Your task to perform on an android device: Go to wifi settings Image 0: 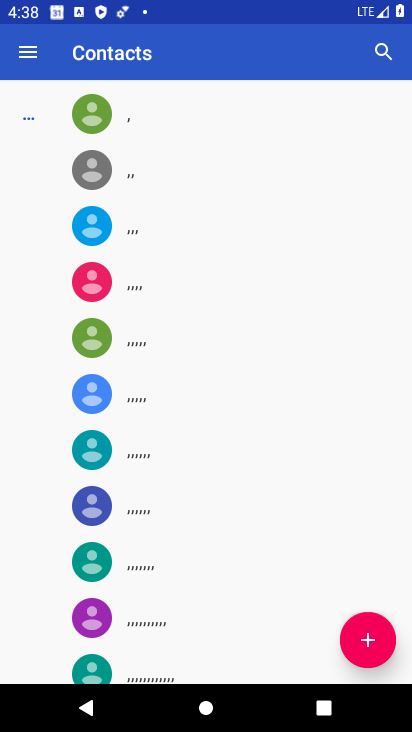
Step 0: press home button
Your task to perform on an android device: Go to wifi settings Image 1: 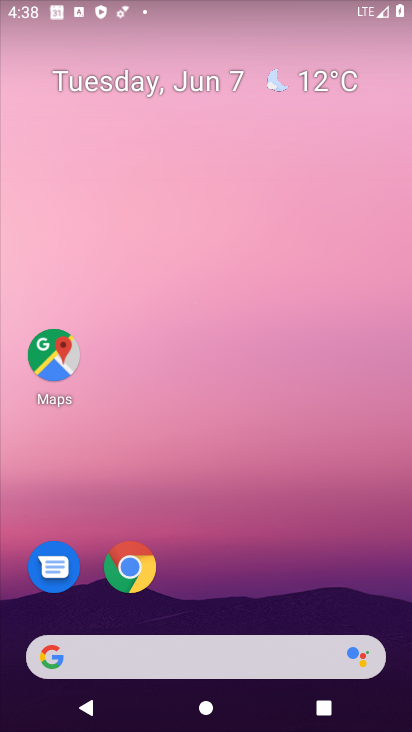
Step 1: drag from (327, 598) to (324, 54)
Your task to perform on an android device: Go to wifi settings Image 2: 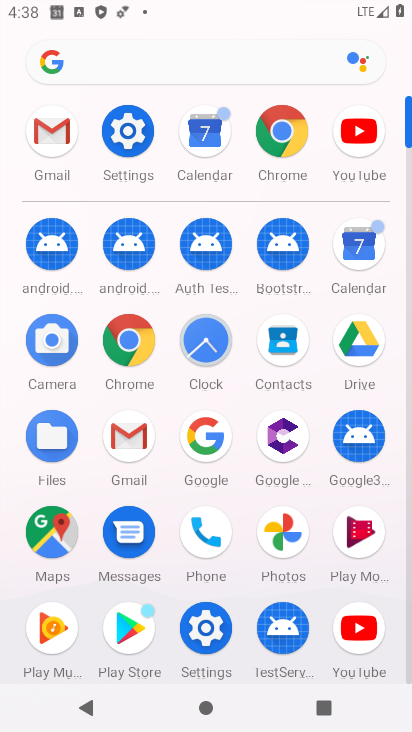
Step 2: click (120, 131)
Your task to perform on an android device: Go to wifi settings Image 3: 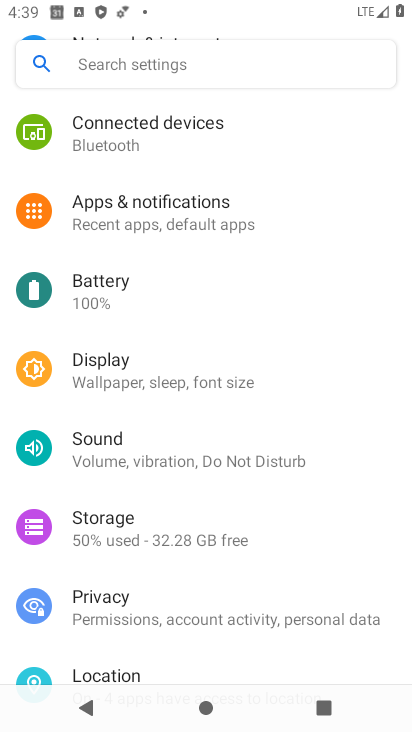
Step 3: drag from (191, 158) to (233, 574)
Your task to perform on an android device: Go to wifi settings Image 4: 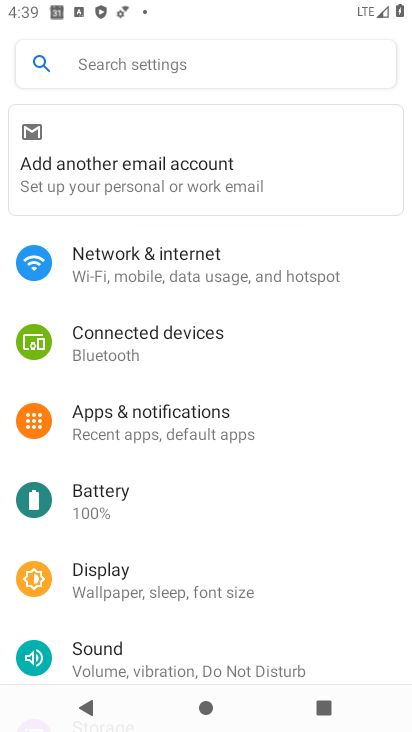
Step 4: click (218, 272)
Your task to perform on an android device: Go to wifi settings Image 5: 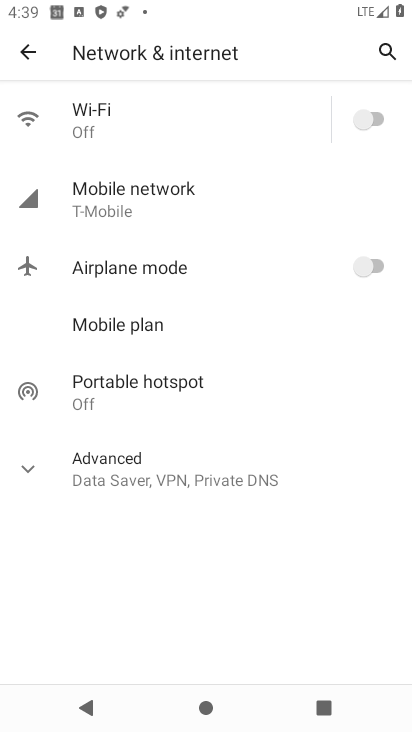
Step 5: click (136, 133)
Your task to perform on an android device: Go to wifi settings Image 6: 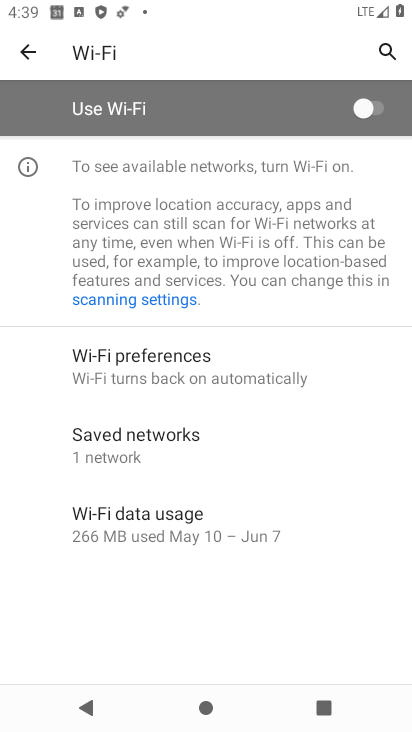
Step 6: task complete